Your task to perform on an android device: Is it going to rain today? Image 0: 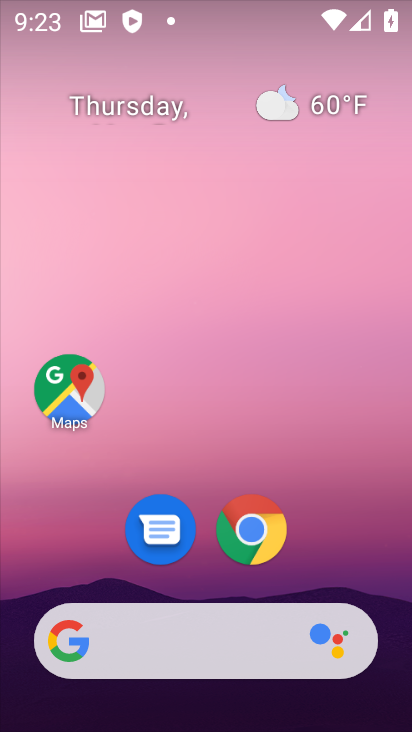
Step 0: click (300, 94)
Your task to perform on an android device: Is it going to rain today? Image 1: 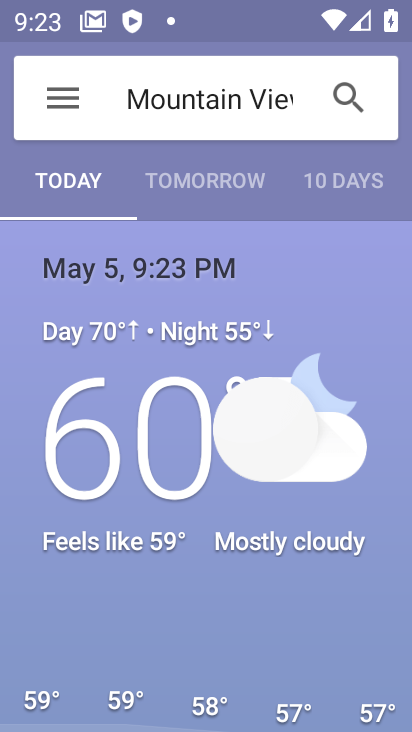
Step 1: task complete